Your task to perform on an android device: refresh tabs in the chrome app Image 0: 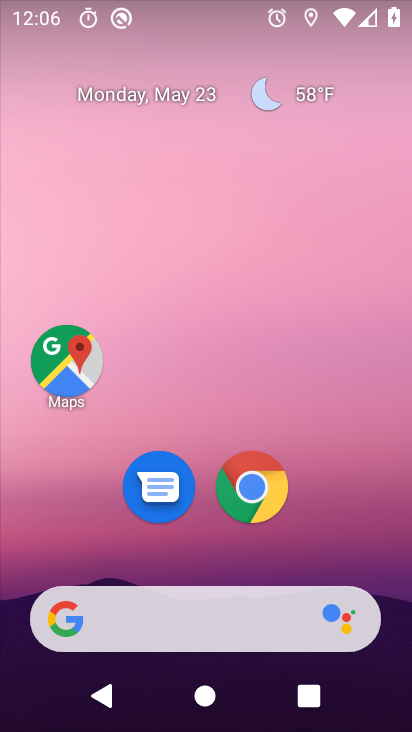
Step 0: drag from (373, 508) to (336, 154)
Your task to perform on an android device: refresh tabs in the chrome app Image 1: 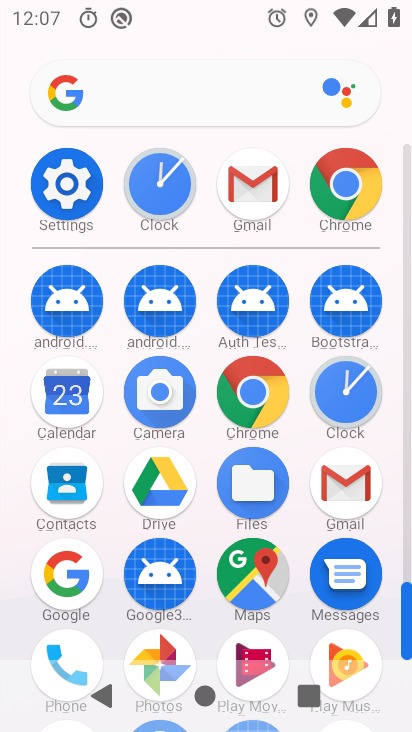
Step 1: click (251, 410)
Your task to perform on an android device: refresh tabs in the chrome app Image 2: 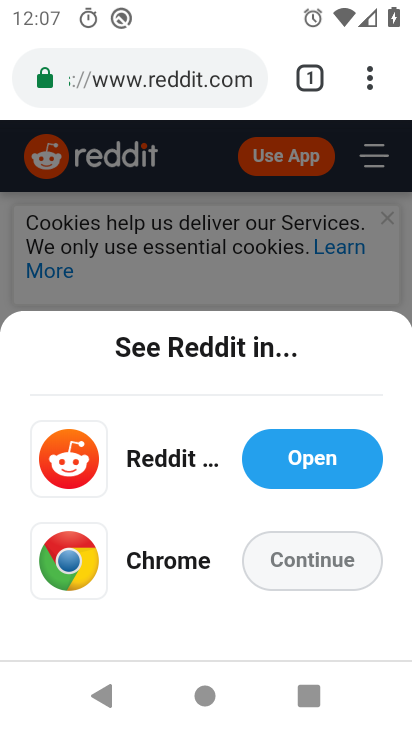
Step 2: click (370, 87)
Your task to perform on an android device: refresh tabs in the chrome app Image 3: 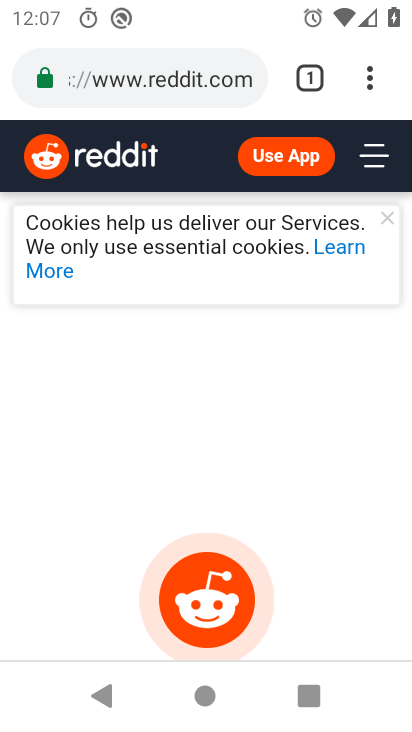
Step 3: task complete